Your task to perform on an android device: change your default location settings in chrome Image 0: 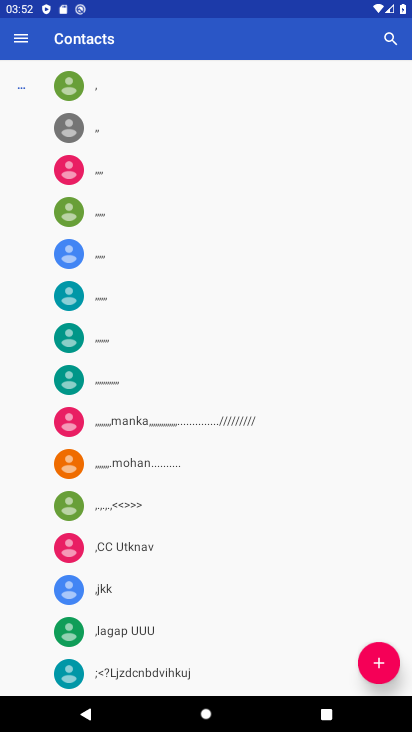
Step 0: press home button
Your task to perform on an android device: change your default location settings in chrome Image 1: 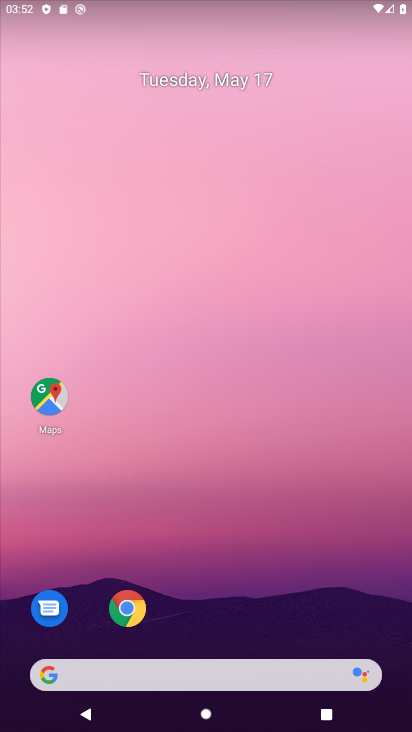
Step 1: click (122, 605)
Your task to perform on an android device: change your default location settings in chrome Image 2: 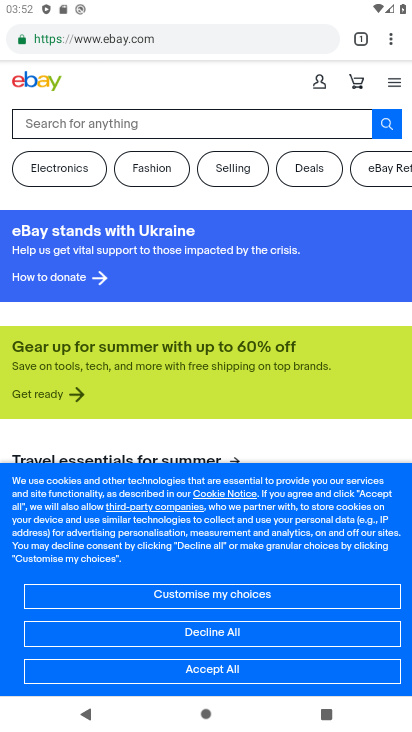
Step 2: click (391, 36)
Your task to perform on an android device: change your default location settings in chrome Image 3: 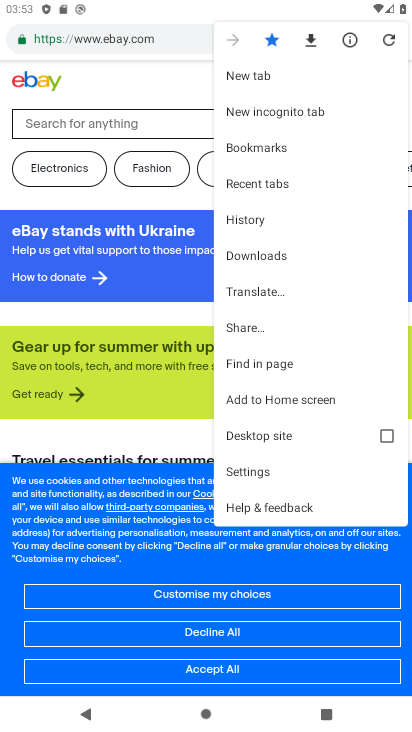
Step 3: click (250, 475)
Your task to perform on an android device: change your default location settings in chrome Image 4: 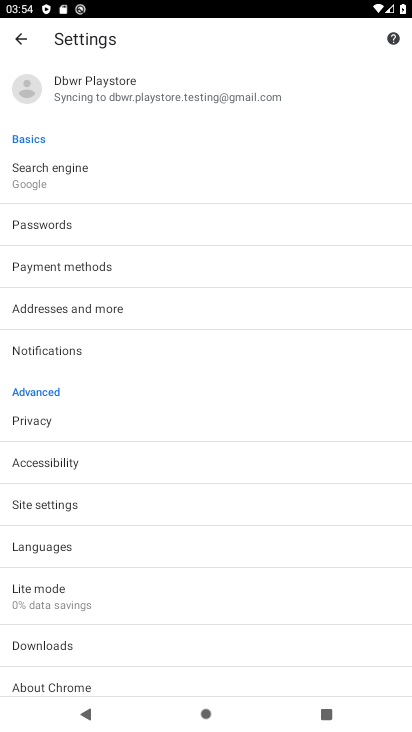
Step 4: click (36, 178)
Your task to perform on an android device: change your default location settings in chrome Image 5: 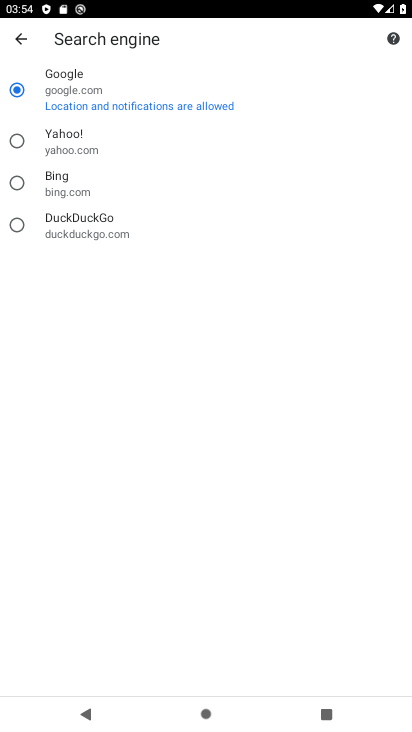
Step 5: press back button
Your task to perform on an android device: change your default location settings in chrome Image 6: 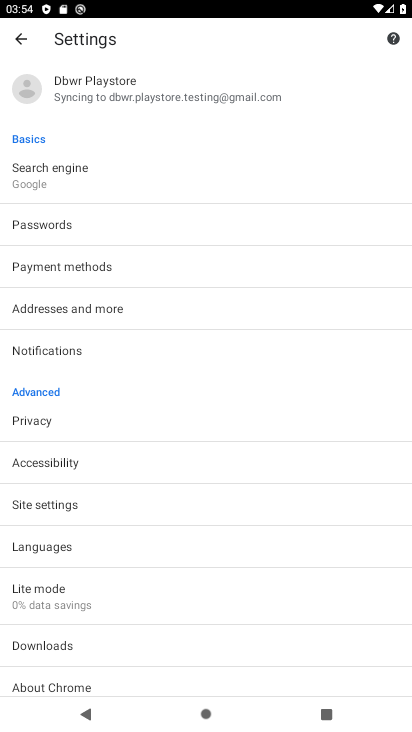
Step 6: click (60, 504)
Your task to perform on an android device: change your default location settings in chrome Image 7: 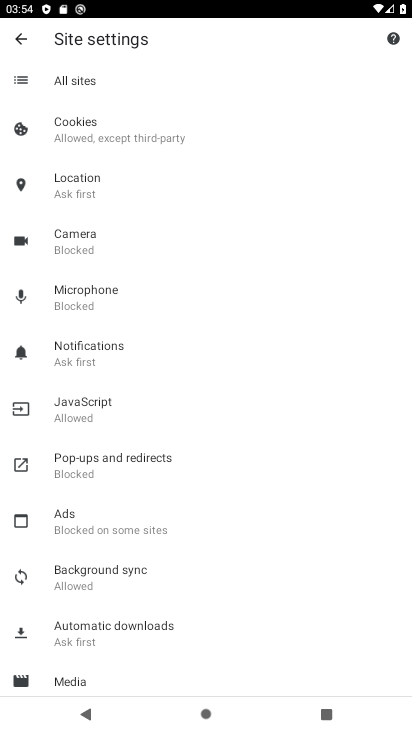
Step 7: click (84, 190)
Your task to perform on an android device: change your default location settings in chrome Image 8: 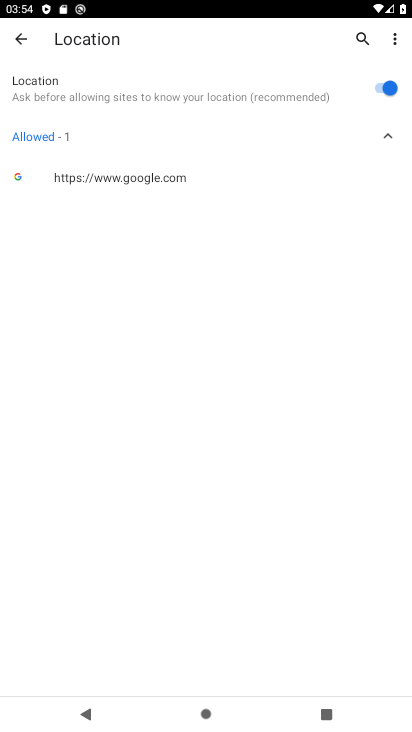
Step 8: click (380, 90)
Your task to perform on an android device: change your default location settings in chrome Image 9: 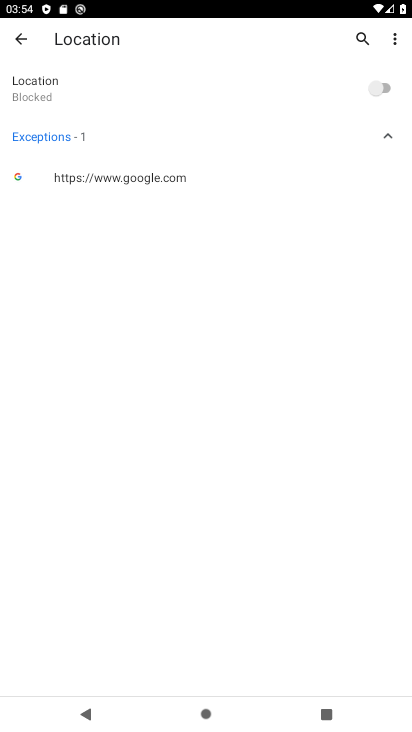
Step 9: task complete